Your task to perform on an android device: Turn on the flashlight Image 0: 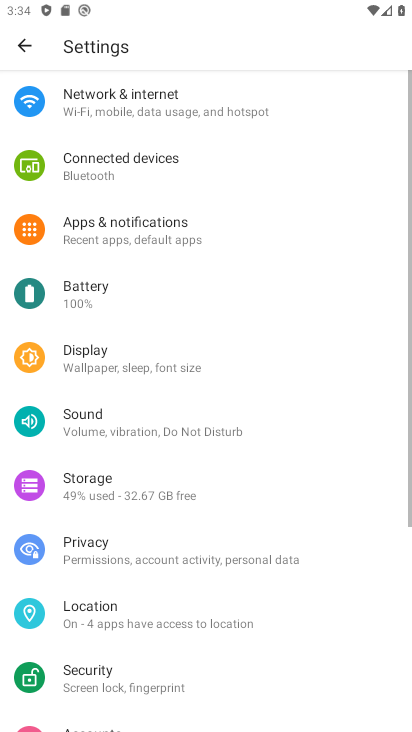
Step 0: click (87, 348)
Your task to perform on an android device: Turn on the flashlight Image 1: 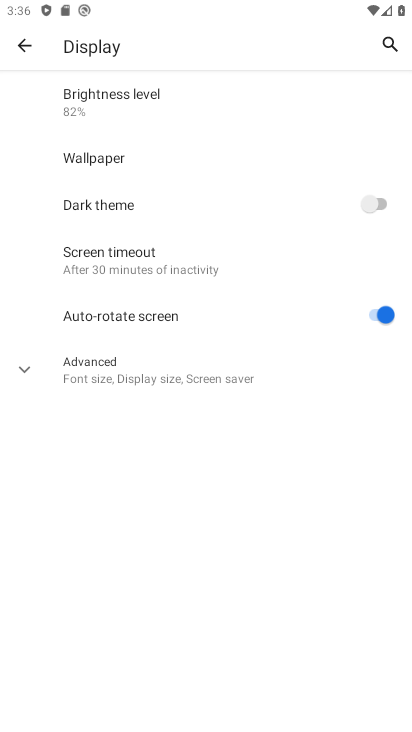
Step 1: task complete